Your task to perform on an android device: toggle translation in the chrome app Image 0: 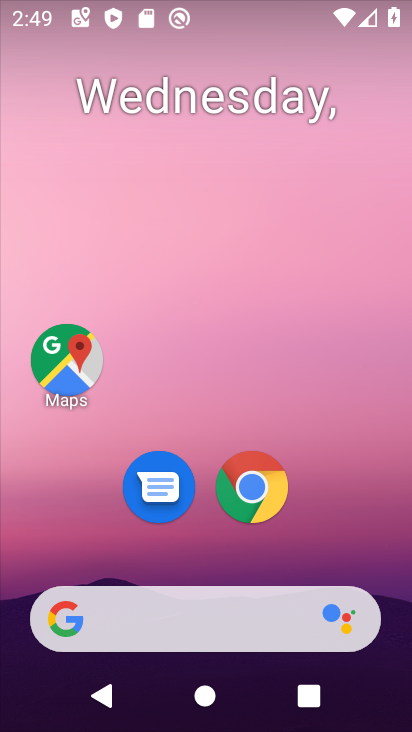
Step 0: click (261, 476)
Your task to perform on an android device: toggle translation in the chrome app Image 1: 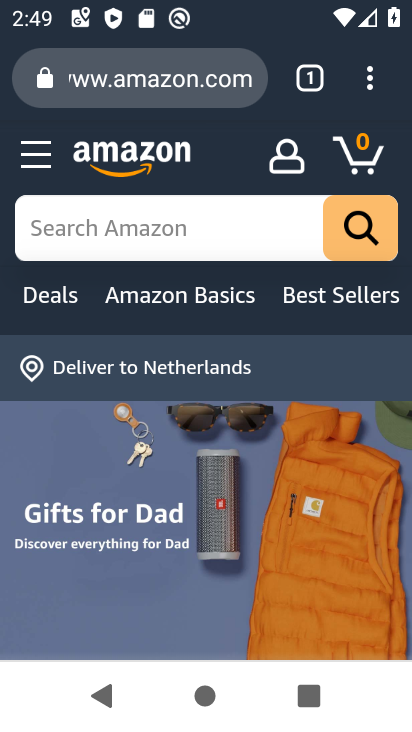
Step 1: click (363, 84)
Your task to perform on an android device: toggle translation in the chrome app Image 2: 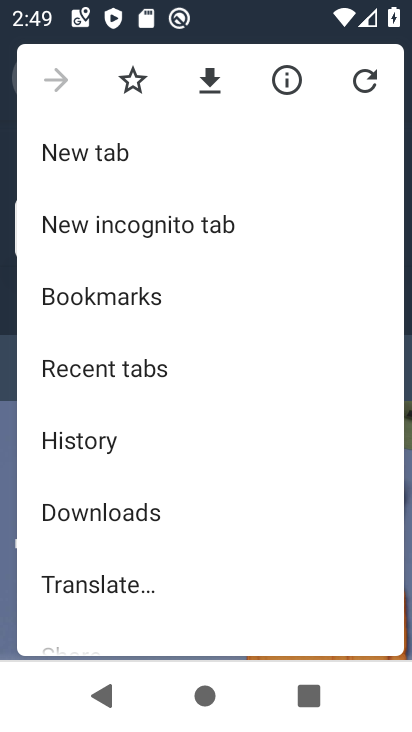
Step 2: drag from (216, 554) to (271, 106)
Your task to perform on an android device: toggle translation in the chrome app Image 3: 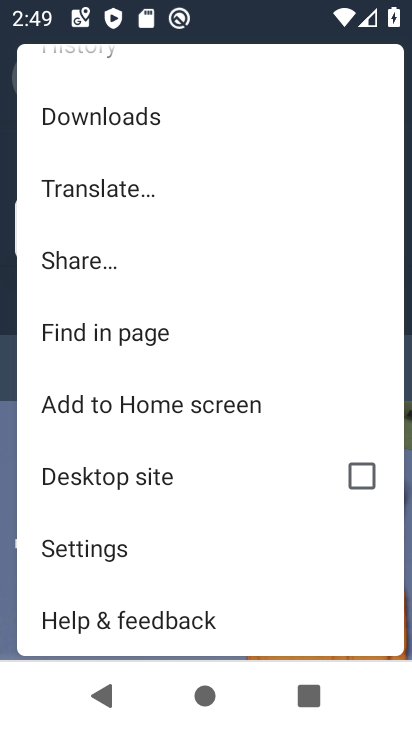
Step 3: click (185, 545)
Your task to perform on an android device: toggle translation in the chrome app Image 4: 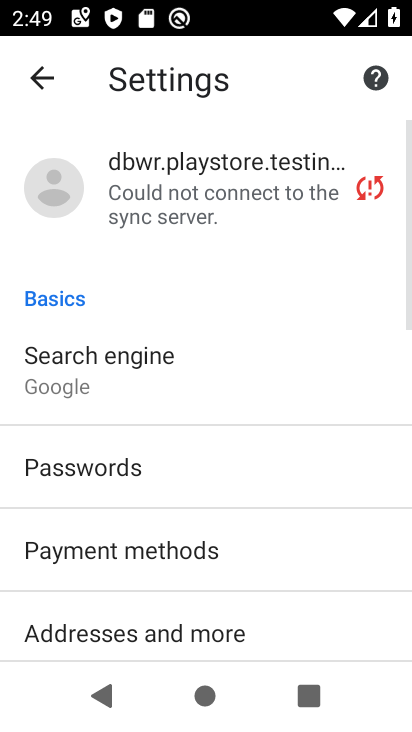
Step 4: drag from (245, 585) to (216, 172)
Your task to perform on an android device: toggle translation in the chrome app Image 5: 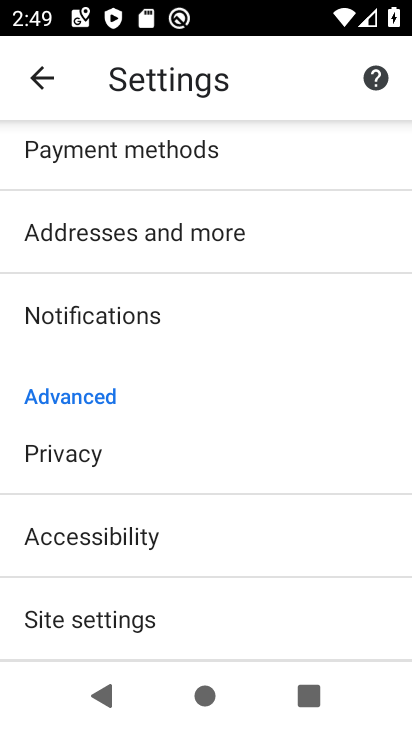
Step 5: drag from (246, 554) to (238, 253)
Your task to perform on an android device: toggle translation in the chrome app Image 6: 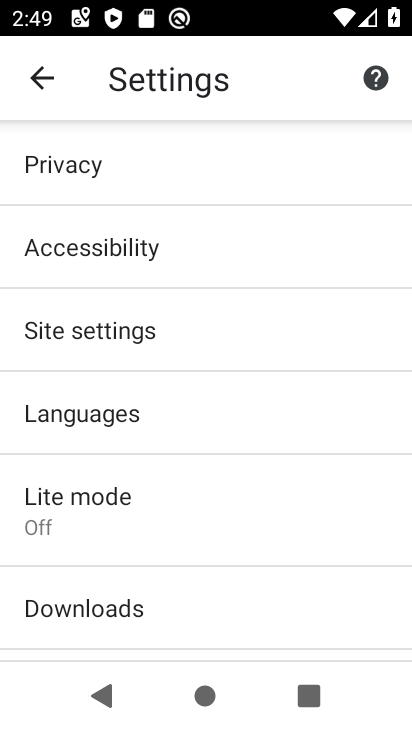
Step 6: click (215, 410)
Your task to perform on an android device: toggle translation in the chrome app Image 7: 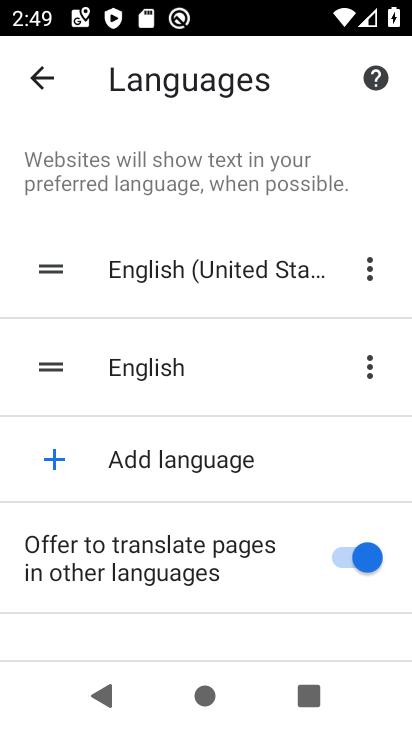
Step 7: click (347, 550)
Your task to perform on an android device: toggle translation in the chrome app Image 8: 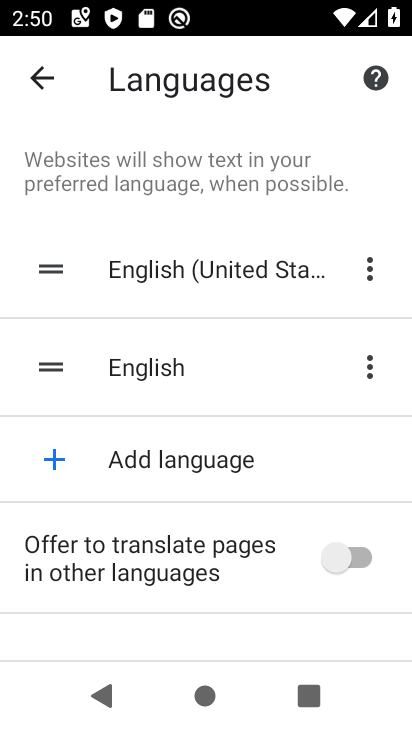
Step 8: task complete